Your task to perform on an android device: Show me productivity apps on the Play Store Image 0: 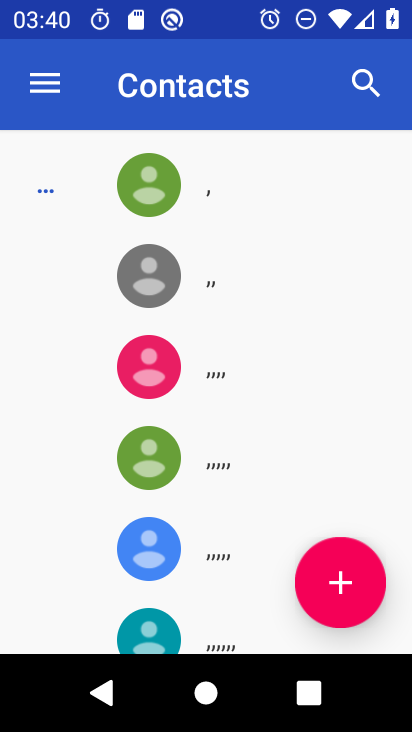
Step 0: press home button
Your task to perform on an android device: Show me productivity apps on the Play Store Image 1: 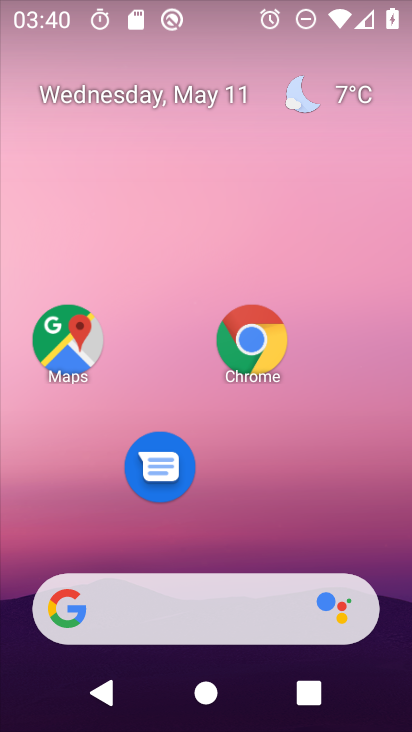
Step 1: drag from (164, 642) to (287, 128)
Your task to perform on an android device: Show me productivity apps on the Play Store Image 2: 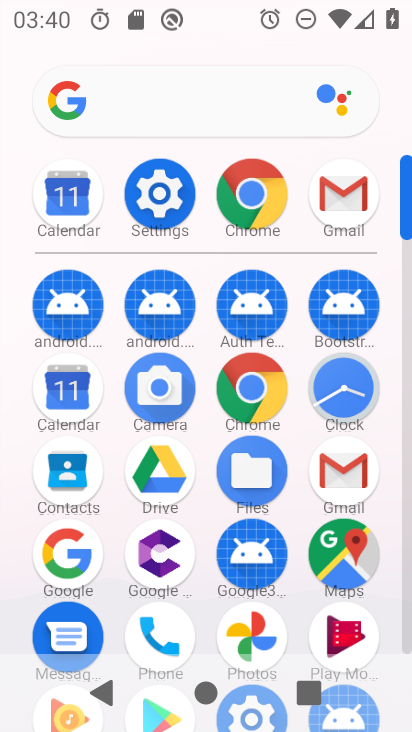
Step 2: drag from (161, 681) to (269, 281)
Your task to perform on an android device: Show me productivity apps on the Play Store Image 3: 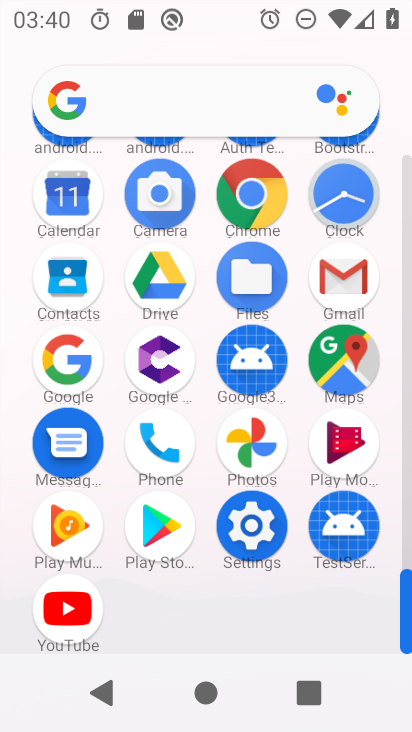
Step 3: click (156, 532)
Your task to perform on an android device: Show me productivity apps on the Play Store Image 4: 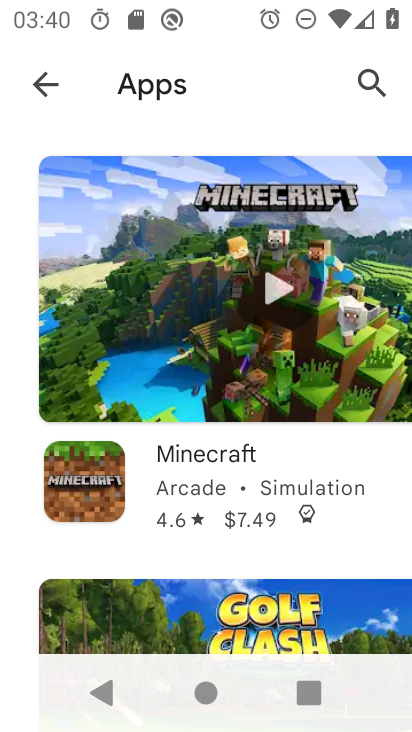
Step 4: click (51, 82)
Your task to perform on an android device: Show me productivity apps on the Play Store Image 5: 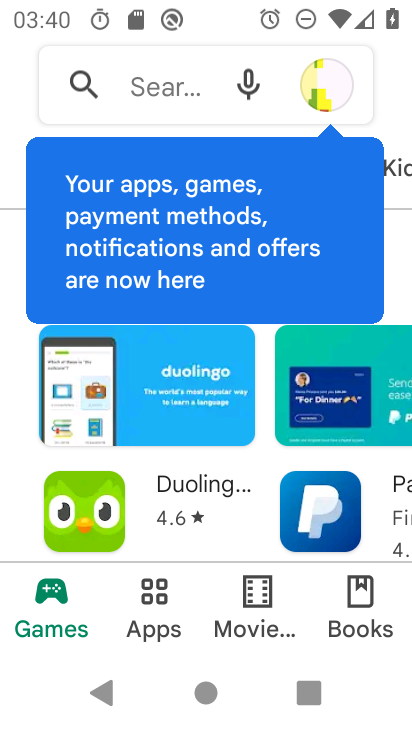
Step 5: click (154, 617)
Your task to perform on an android device: Show me productivity apps on the Play Store Image 6: 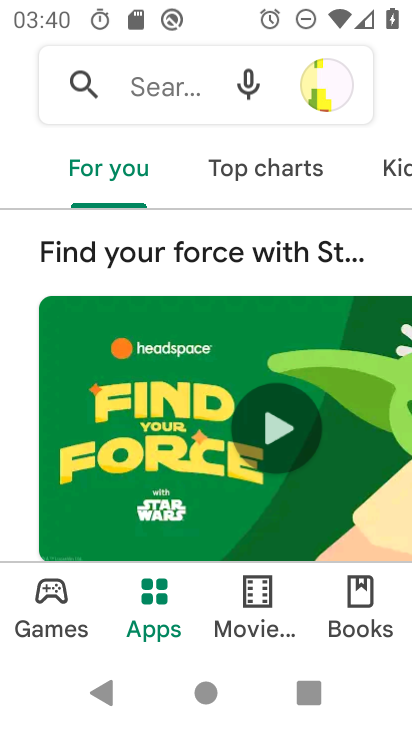
Step 6: drag from (354, 175) to (45, 201)
Your task to perform on an android device: Show me productivity apps on the Play Store Image 7: 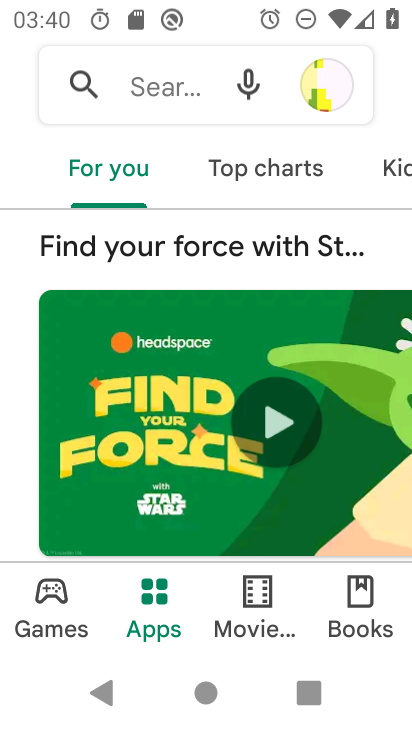
Step 7: drag from (322, 162) to (60, 181)
Your task to perform on an android device: Show me productivity apps on the Play Store Image 8: 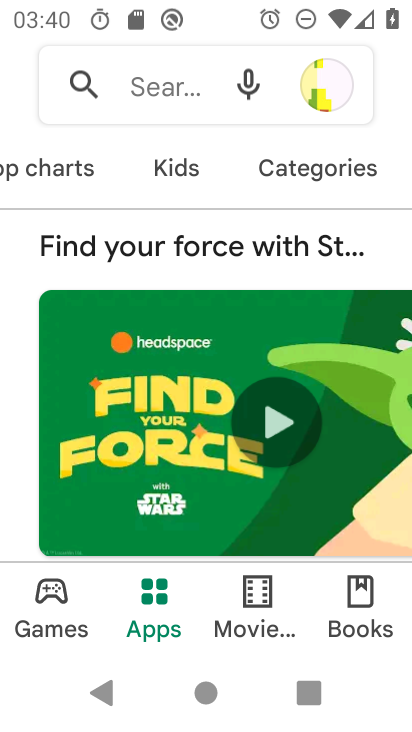
Step 8: click (346, 168)
Your task to perform on an android device: Show me productivity apps on the Play Store Image 9: 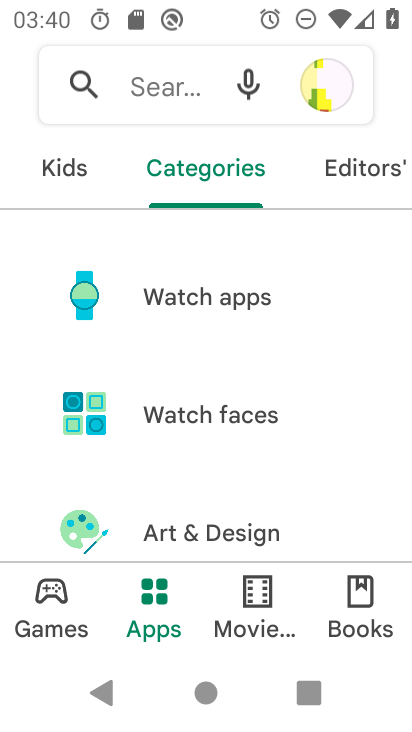
Step 9: drag from (240, 515) to (320, 75)
Your task to perform on an android device: Show me productivity apps on the Play Store Image 10: 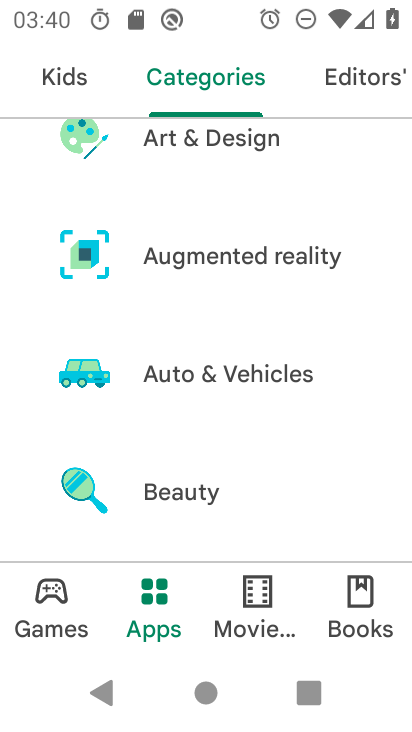
Step 10: drag from (280, 523) to (341, 19)
Your task to perform on an android device: Show me productivity apps on the Play Store Image 11: 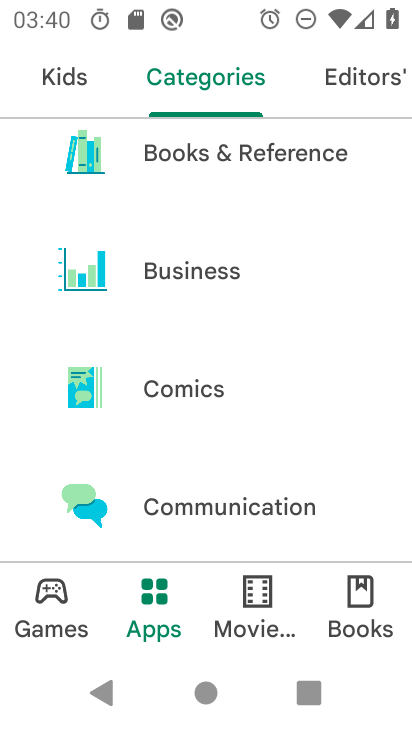
Step 11: drag from (278, 538) to (318, 57)
Your task to perform on an android device: Show me productivity apps on the Play Store Image 12: 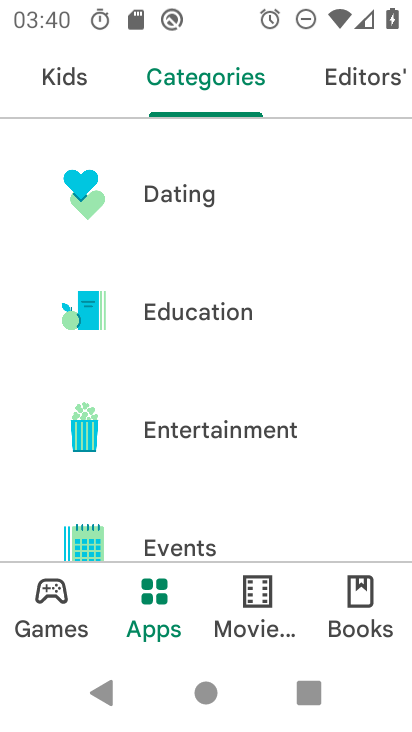
Step 12: drag from (297, 489) to (352, 95)
Your task to perform on an android device: Show me productivity apps on the Play Store Image 13: 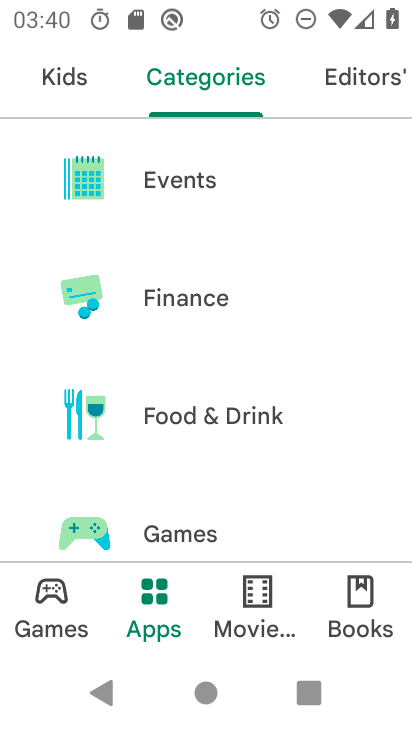
Step 13: drag from (292, 502) to (346, 101)
Your task to perform on an android device: Show me productivity apps on the Play Store Image 14: 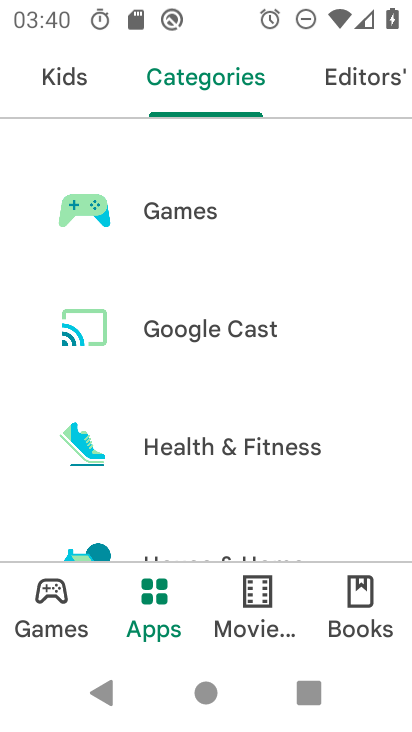
Step 14: drag from (266, 506) to (299, 71)
Your task to perform on an android device: Show me productivity apps on the Play Store Image 15: 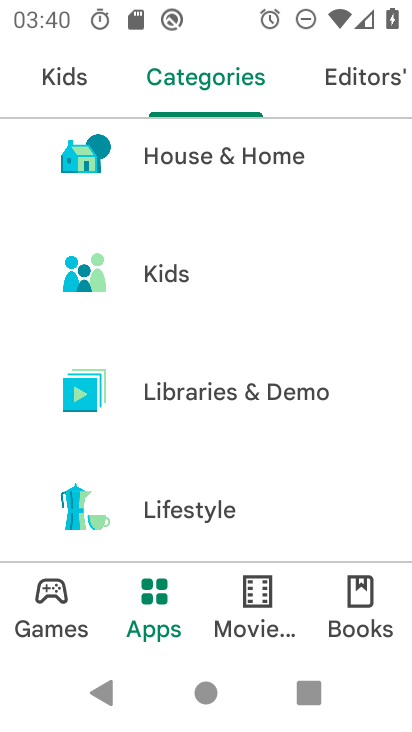
Step 15: drag from (278, 516) to (365, 86)
Your task to perform on an android device: Show me productivity apps on the Play Store Image 16: 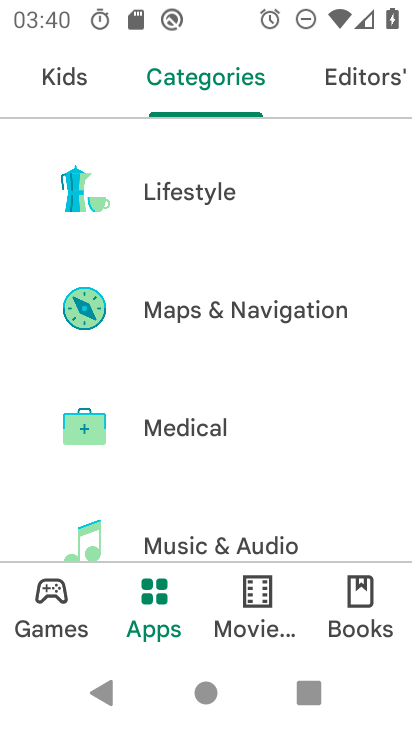
Step 16: drag from (270, 529) to (403, 125)
Your task to perform on an android device: Show me productivity apps on the Play Store Image 17: 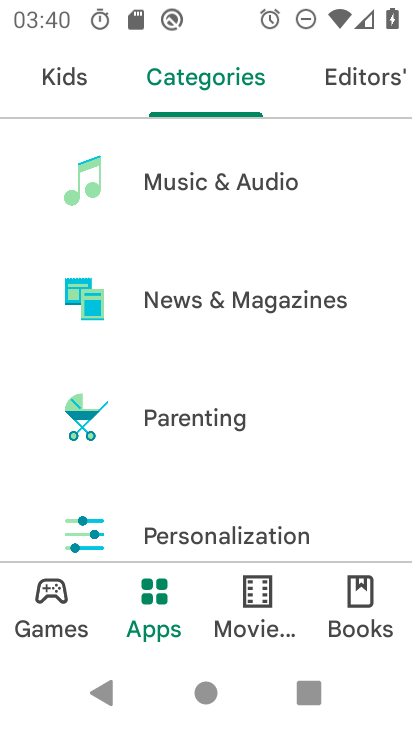
Step 17: drag from (277, 483) to (341, 162)
Your task to perform on an android device: Show me productivity apps on the Play Store Image 18: 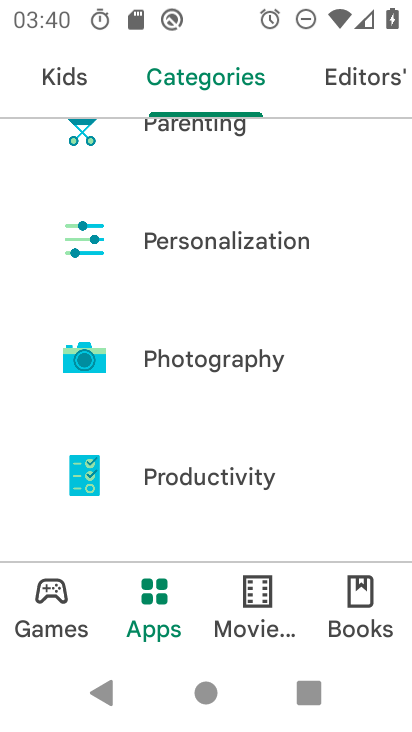
Step 18: click (218, 477)
Your task to perform on an android device: Show me productivity apps on the Play Store Image 19: 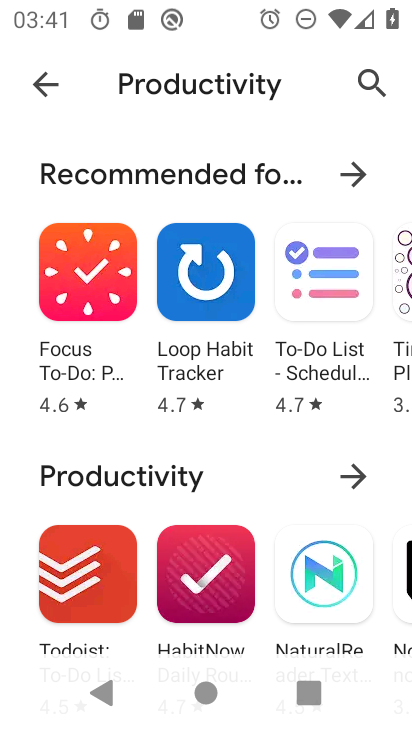
Step 19: task complete